Your task to perform on an android device: Open sound settings Image 0: 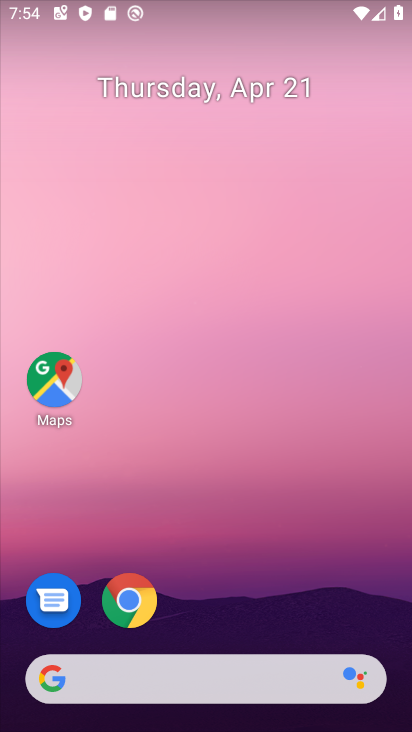
Step 0: drag from (6, 514) to (164, 188)
Your task to perform on an android device: Open sound settings Image 1: 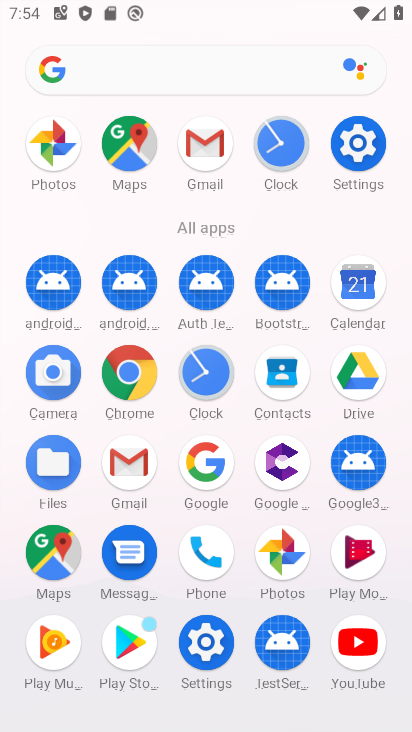
Step 1: click (370, 148)
Your task to perform on an android device: Open sound settings Image 2: 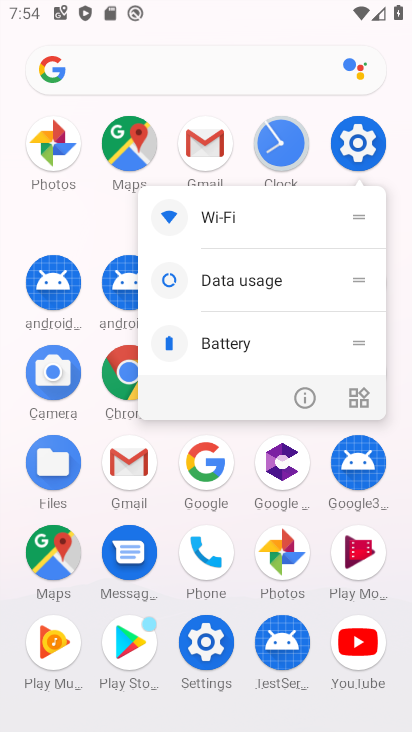
Step 2: click (338, 145)
Your task to perform on an android device: Open sound settings Image 3: 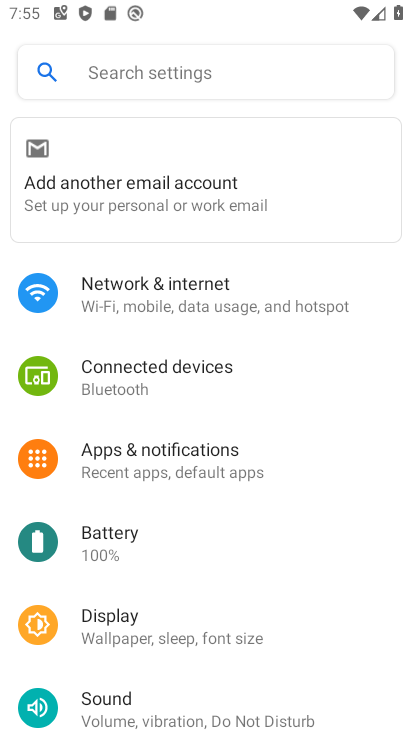
Step 3: click (203, 688)
Your task to perform on an android device: Open sound settings Image 4: 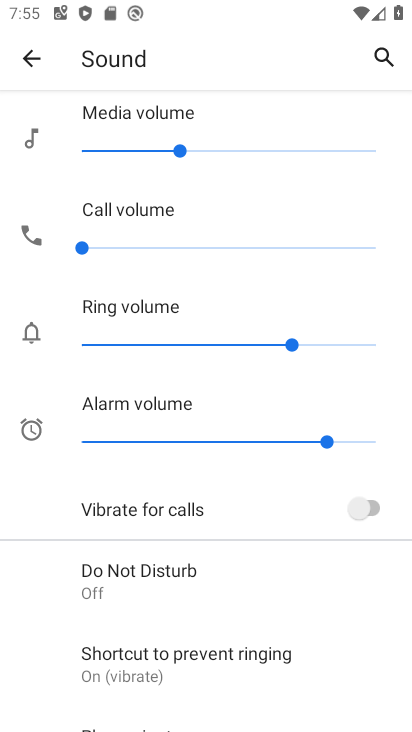
Step 4: task complete